Your task to perform on an android device: install app "Adobe Acrobat Reader" Image 0: 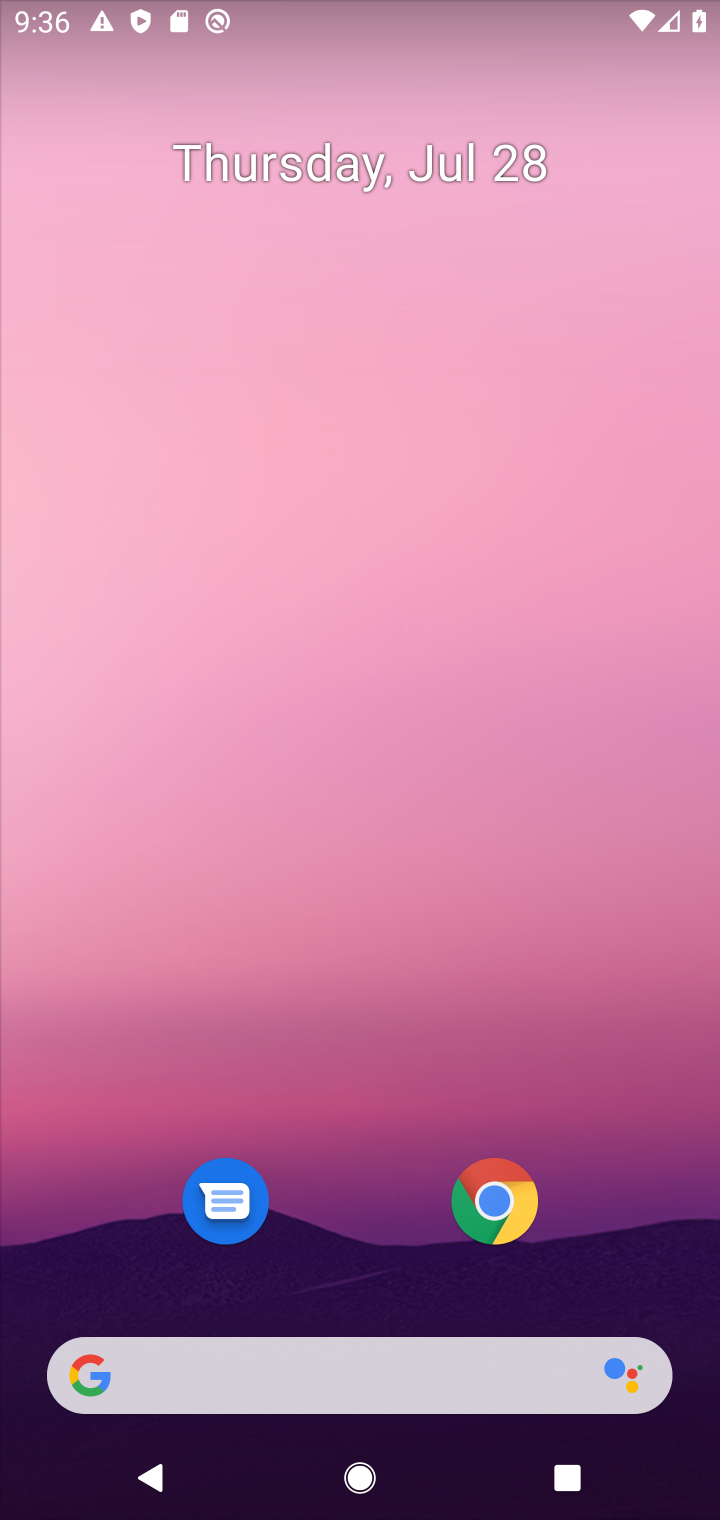
Step 0: drag from (310, 1315) to (384, 0)
Your task to perform on an android device: install app "Adobe Acrobat Reader" Image 1: 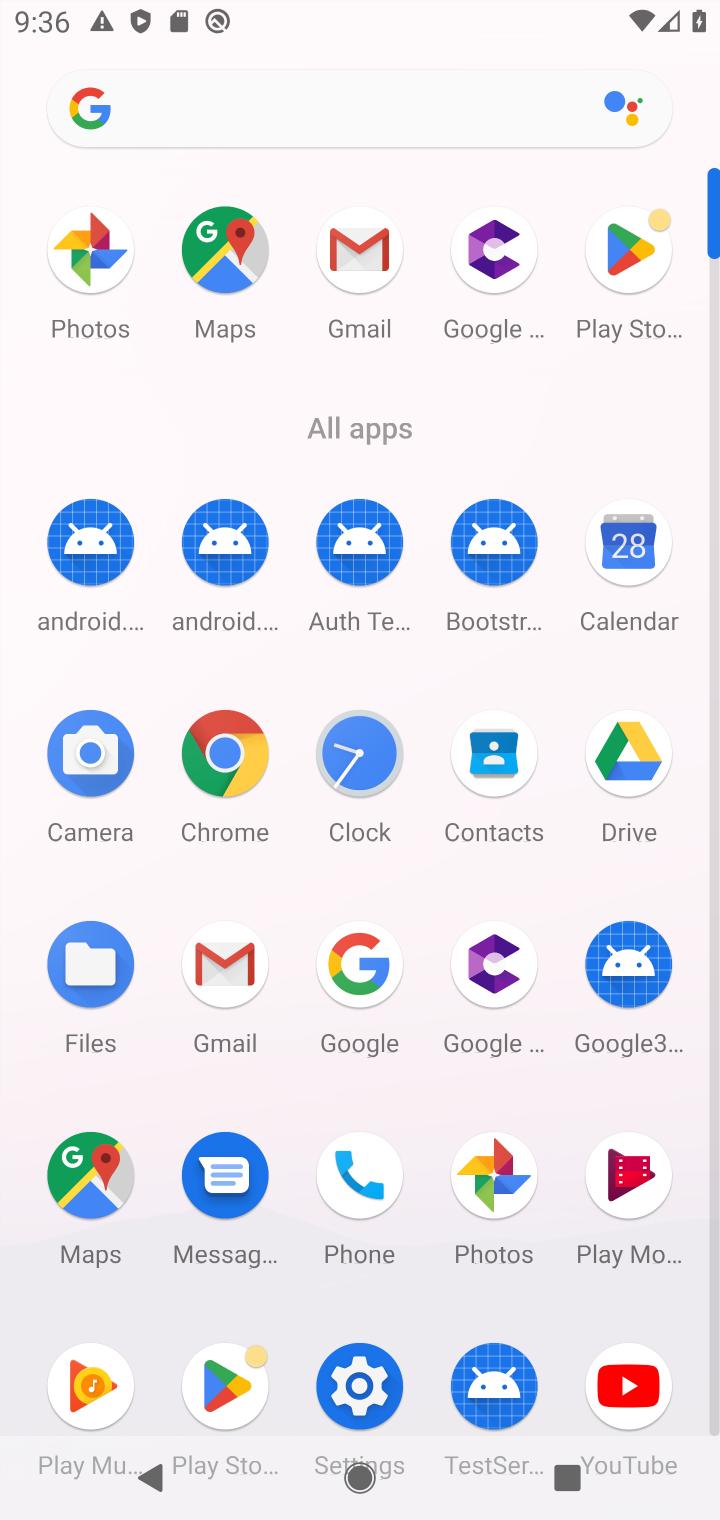
Step 1: click (205, 1378)
Your task to perform on an android device: install app "Adobe Acrobat Reader" Image 2: 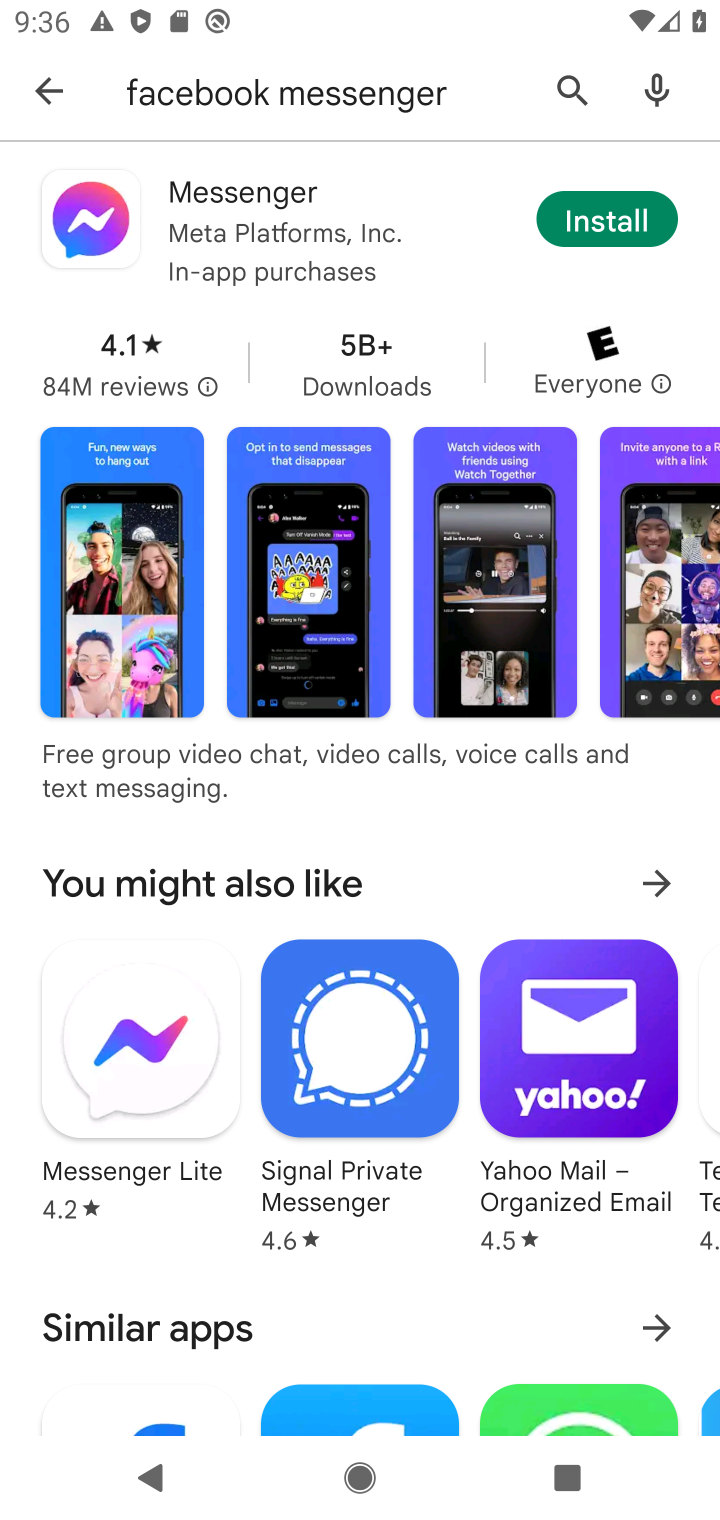
Step 2: click (376, 88)
Your task to perform on an android device: install app "Adobe Acrobat Reader" Image 3: 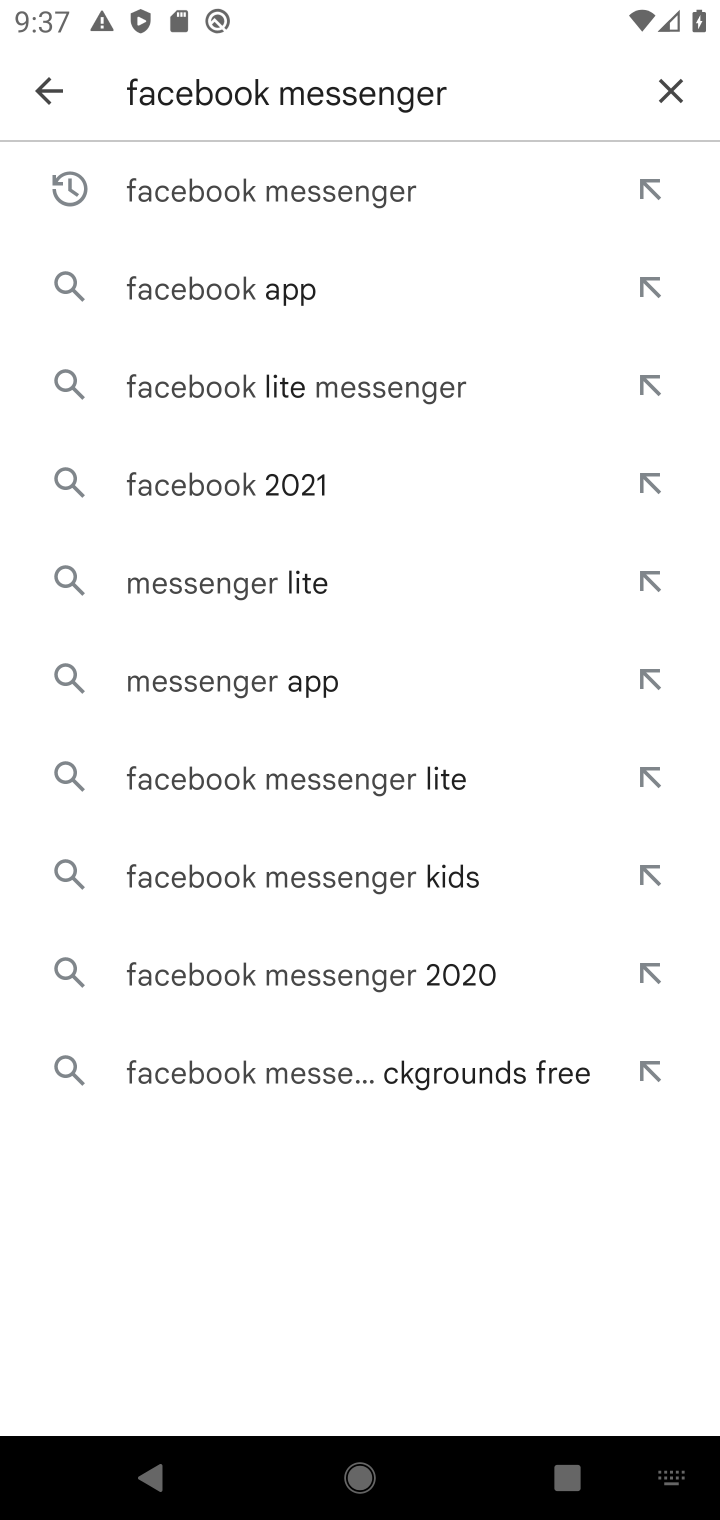
Step 3: click (667, 87)
Your task to perform on an android device: install app "Adobe Acrobat Reader" Image 4: 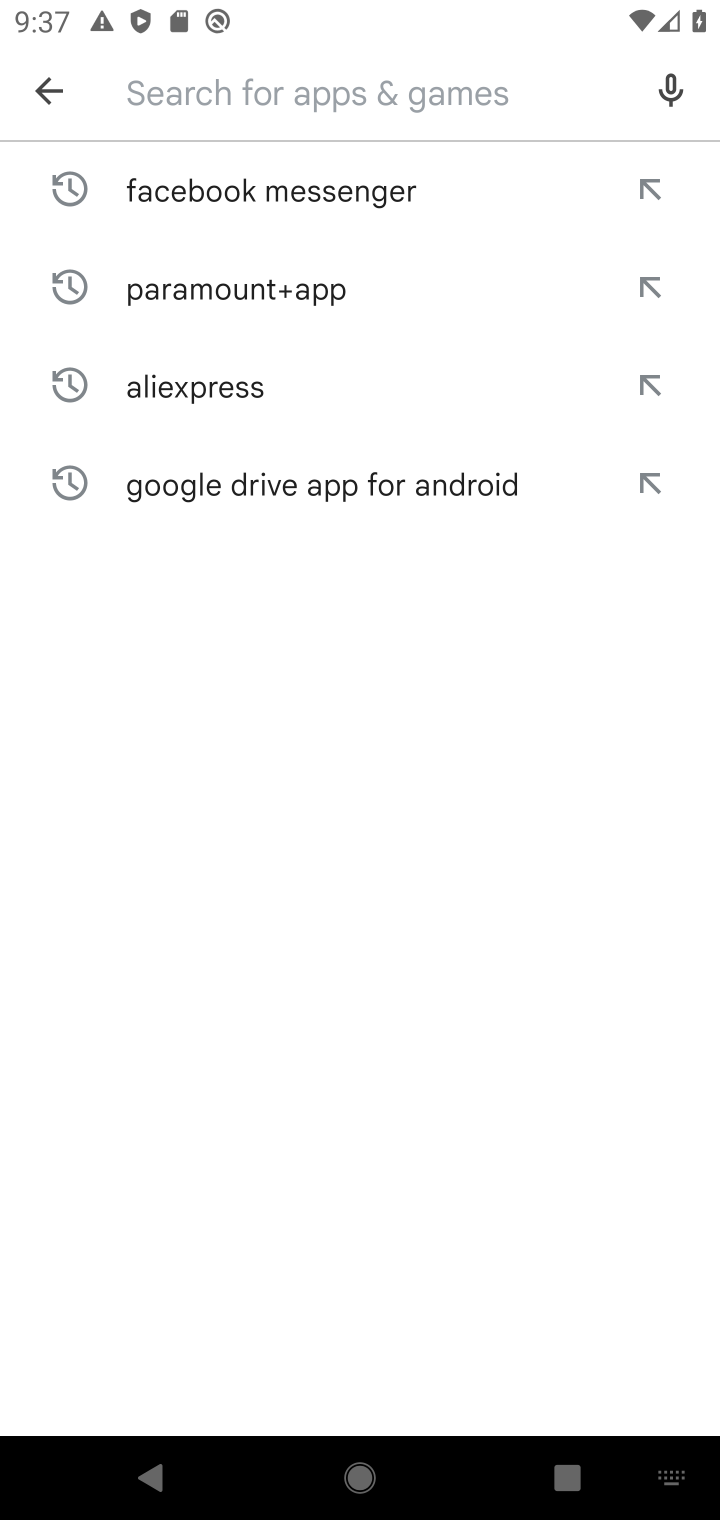
Step 4: type "Adobe Acrobat Reader"
Your task to perform on an android device: install app "Adobe Acrobat Reader" Image 5: 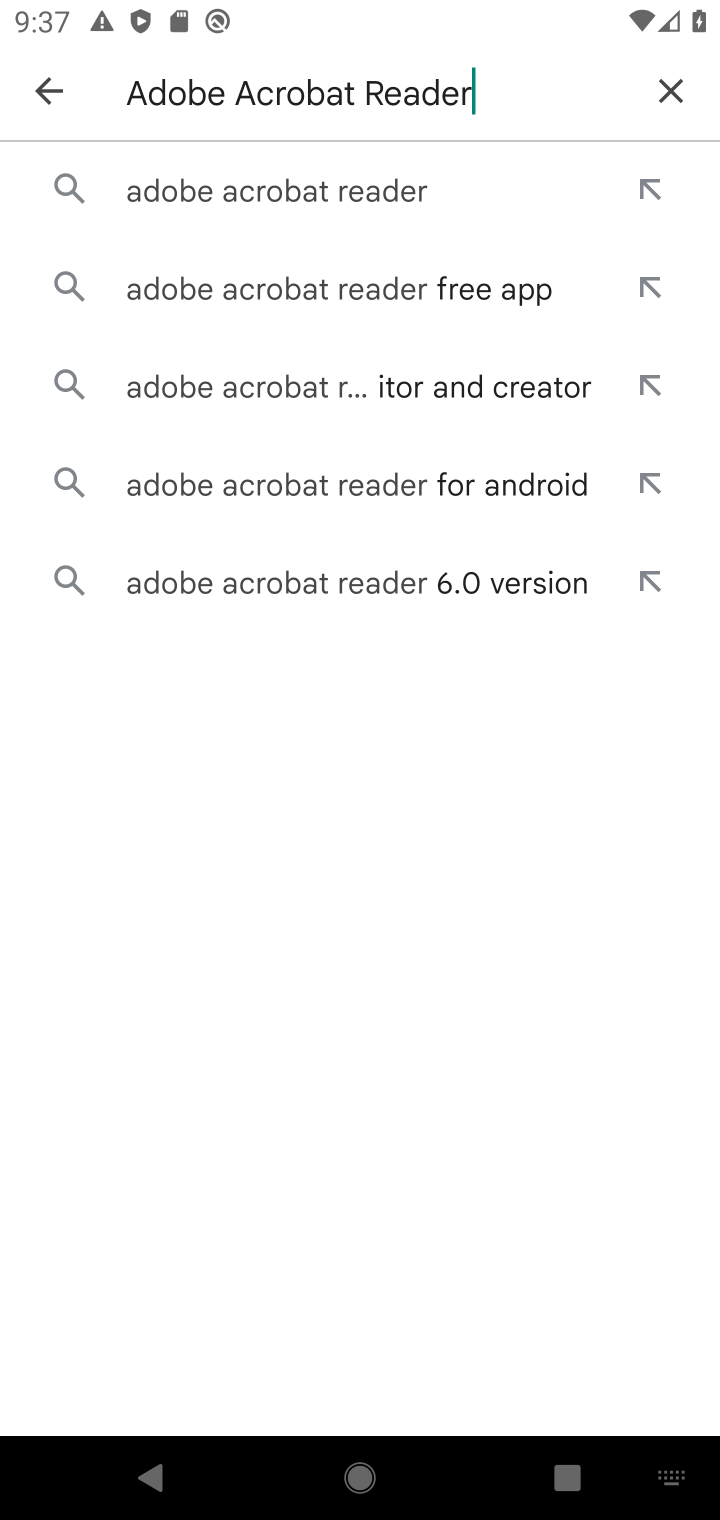
Step 5: click (272, 206)
Your task to perform on an android device: install app "Adobe Acrobat Reader" Image 6: 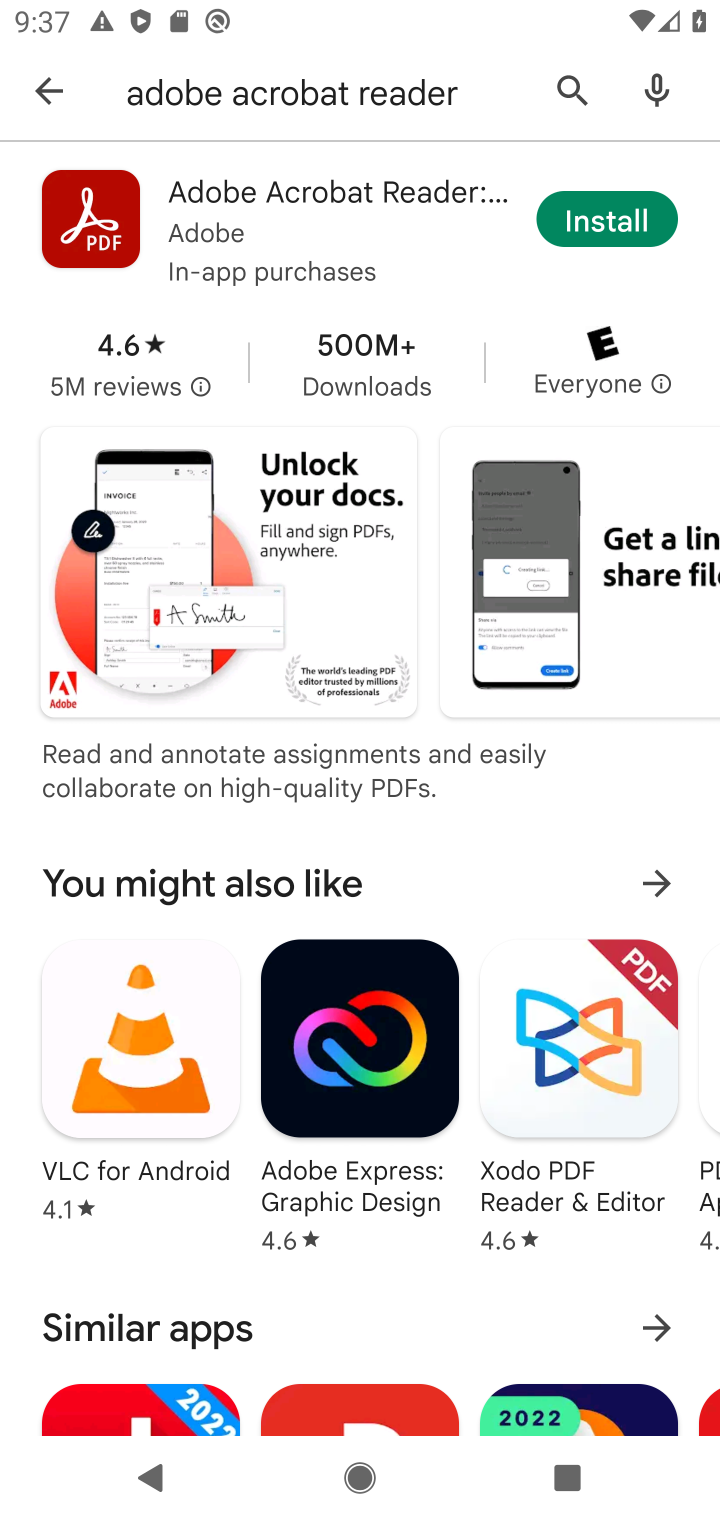
Step 6: click (592, 218)
Your task to perform on an android device: install app "Adobe Acrobat Reader" Image 7: 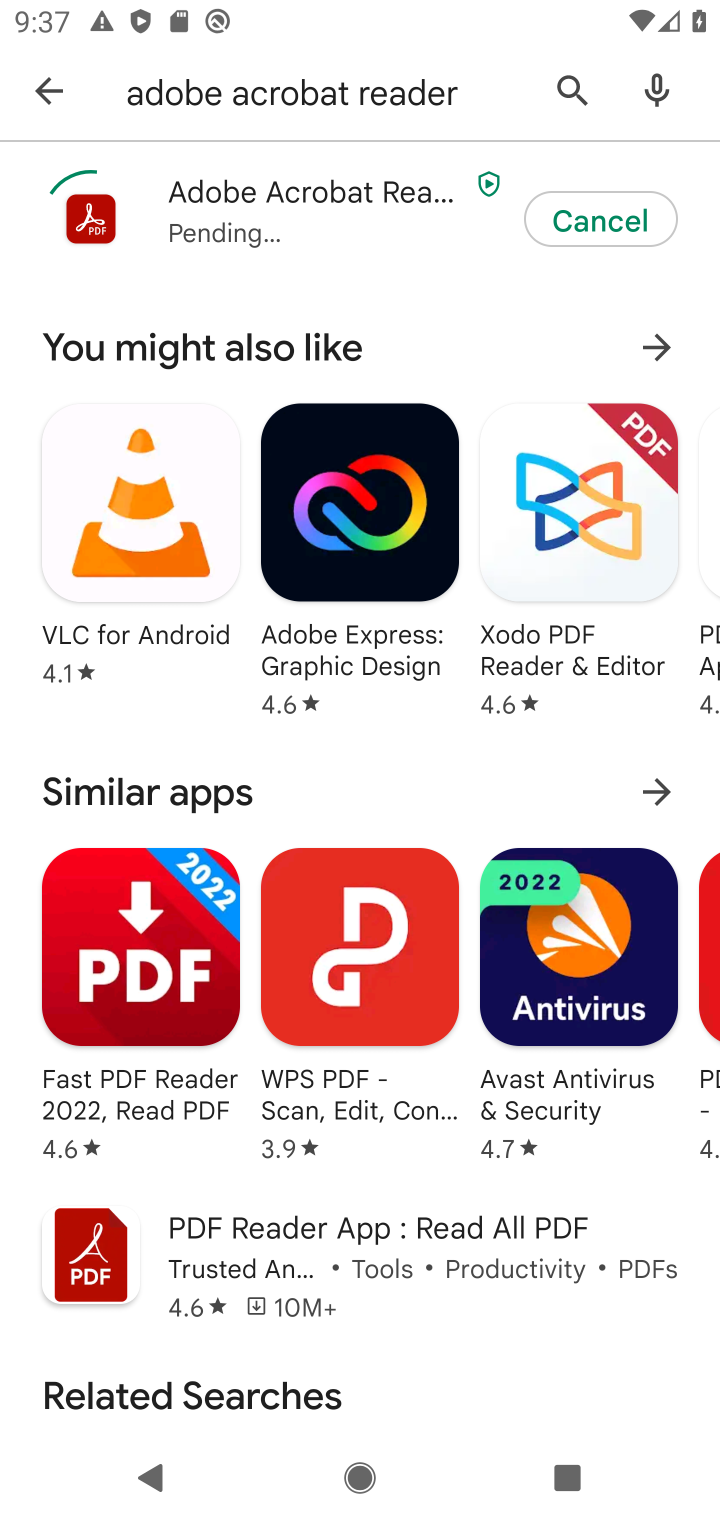
Step 7: click (37, 80)
Your task to perform on an android device: install app "Adobe Acrobat Reader" Image 8: 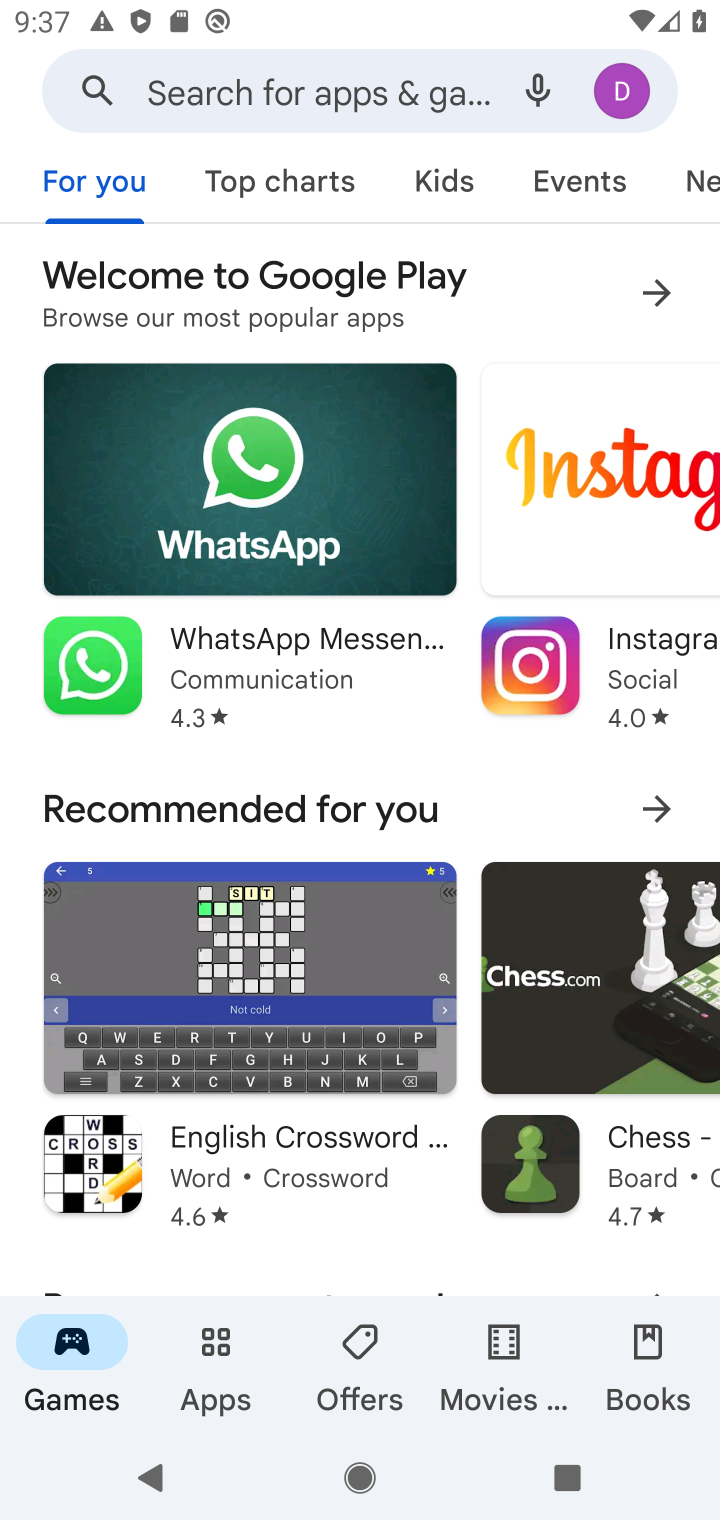
Step 8: click (619, 97)
Your task to perform on an android device: install app "Adobe Acrobat Reader" Image 9: 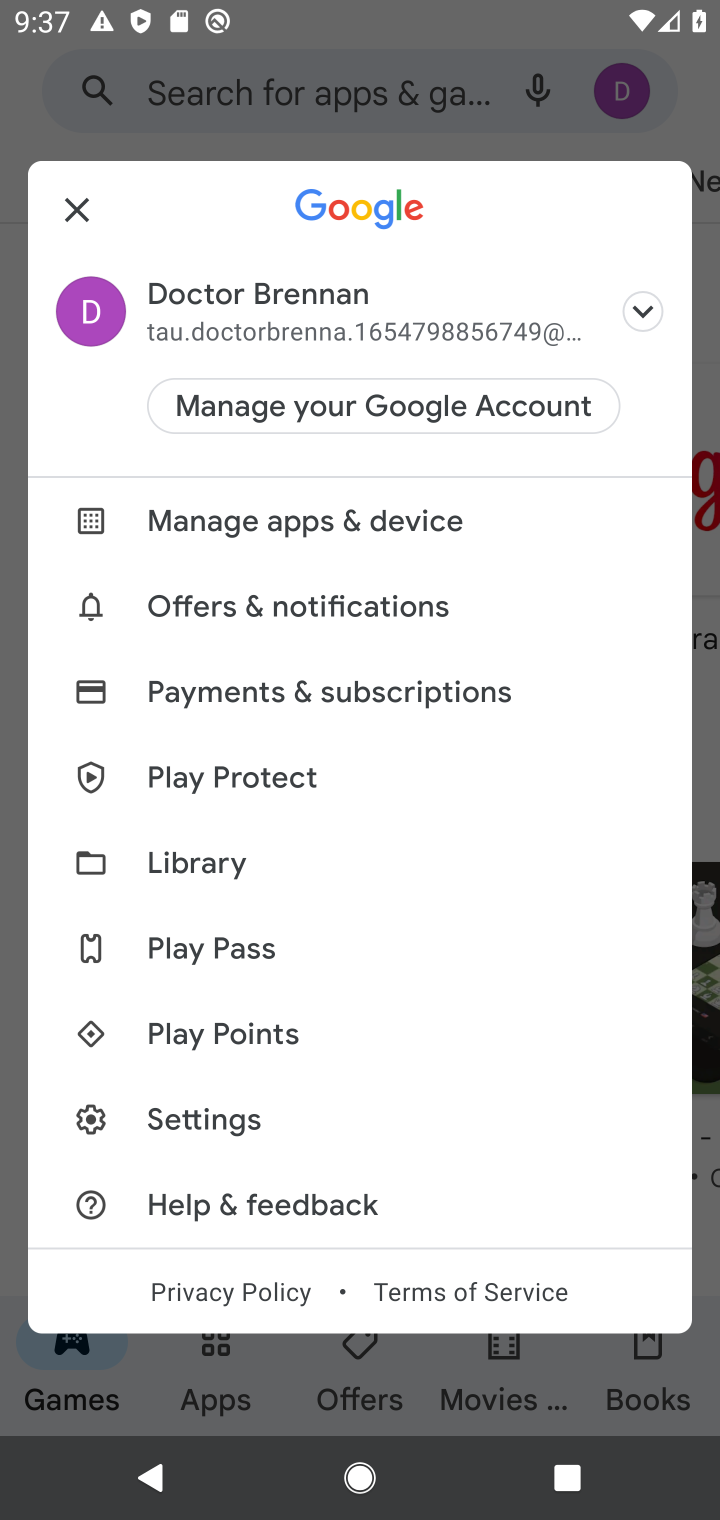
Step 9: click (385, 527)
Your task to perform on an android device: install app "Adobe Acrobat Reader" Image 10: 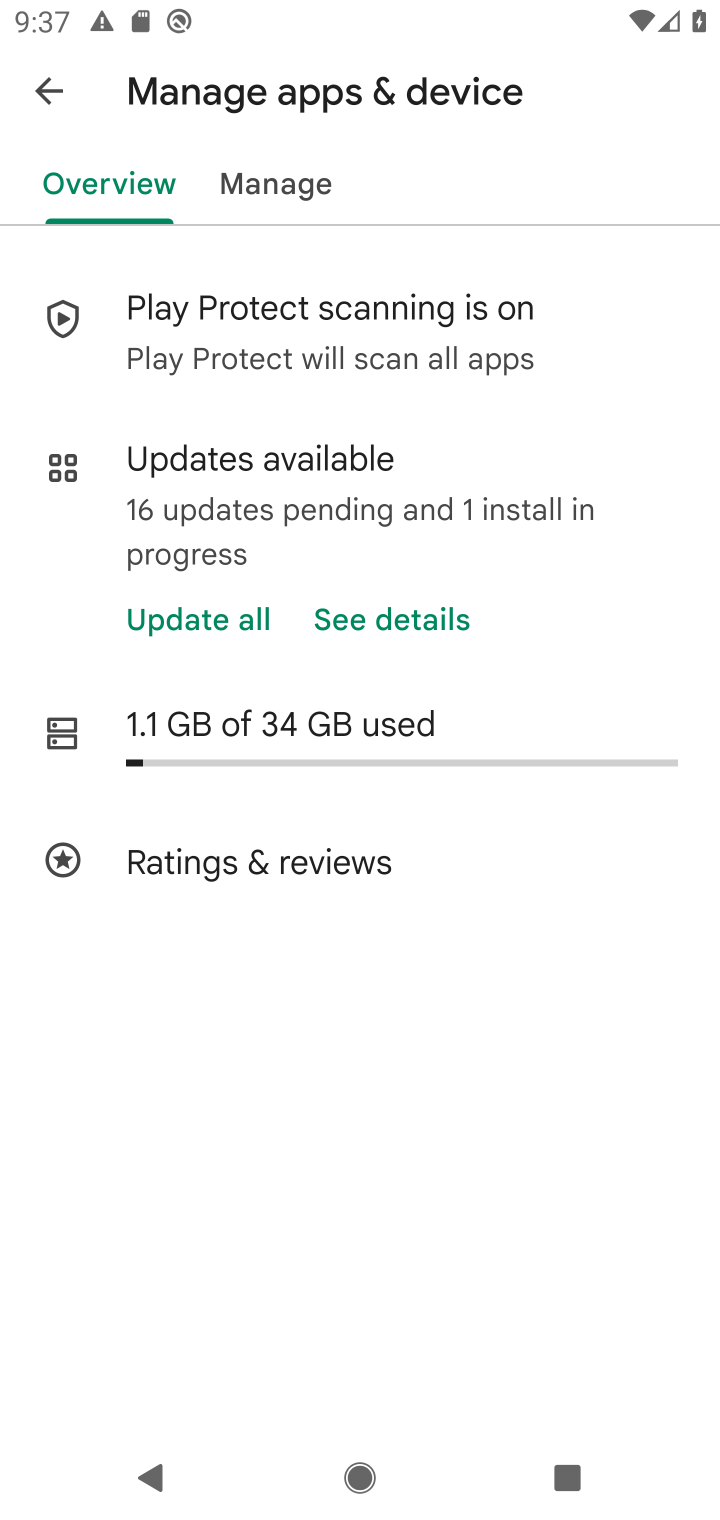
Step 10: click (261, 532)
Your task to perform on an android device: install app "Adobe Acrobat Reader" Image 11: 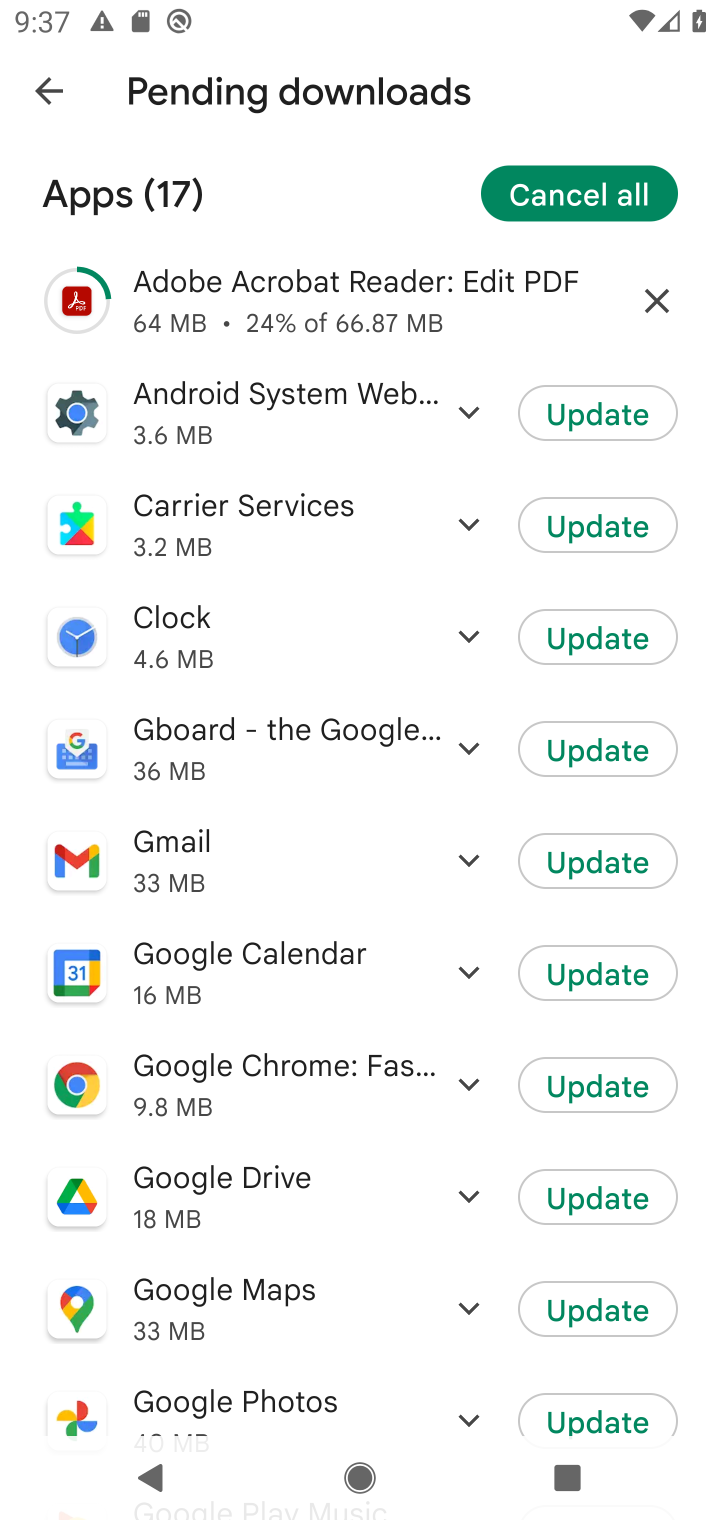
Step 11: click (228, 316)
Your task to perform on an android device: install app "Adobe Acrobat Reader" Image 12: 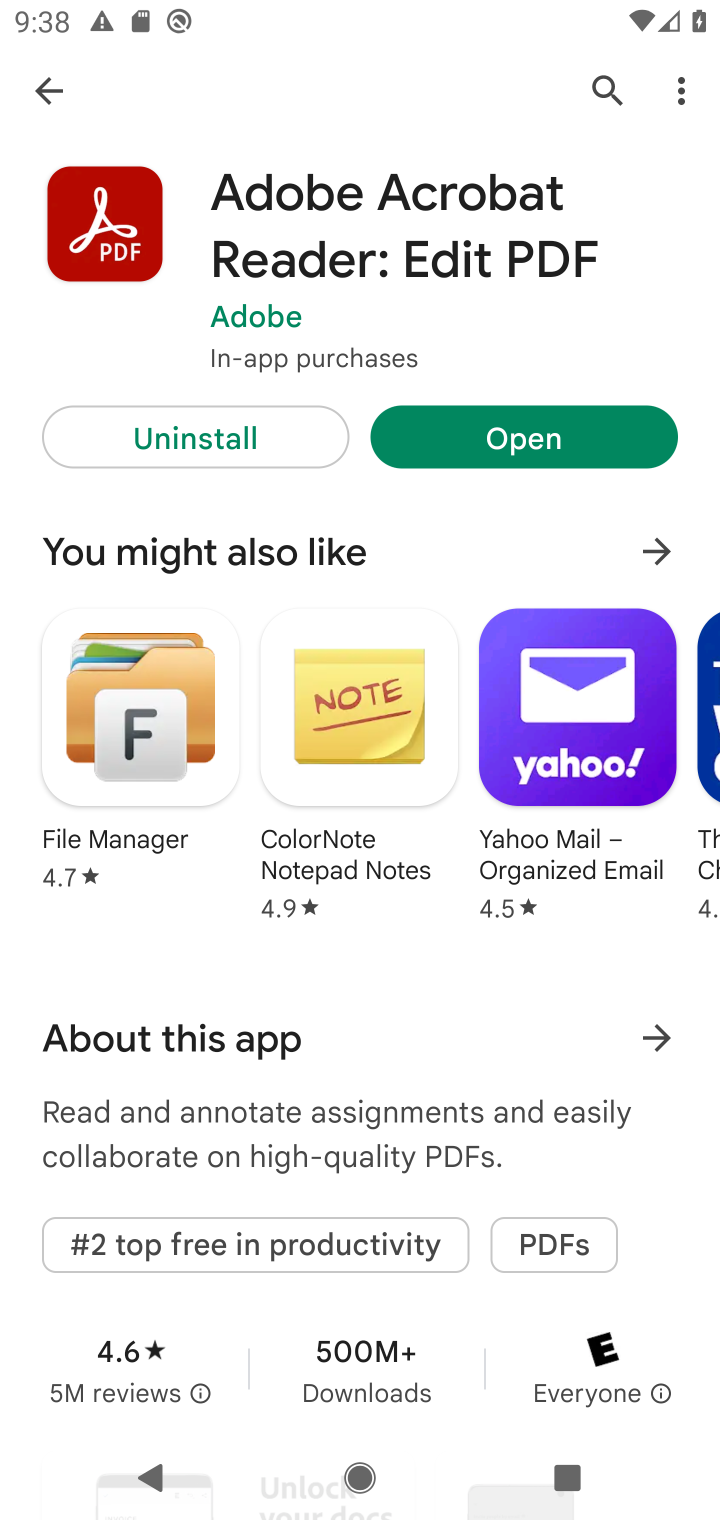
Step 12: click (625, 446)
Your task to perform on an android device: install app "Adobe Acrobat Reader" Image 13: 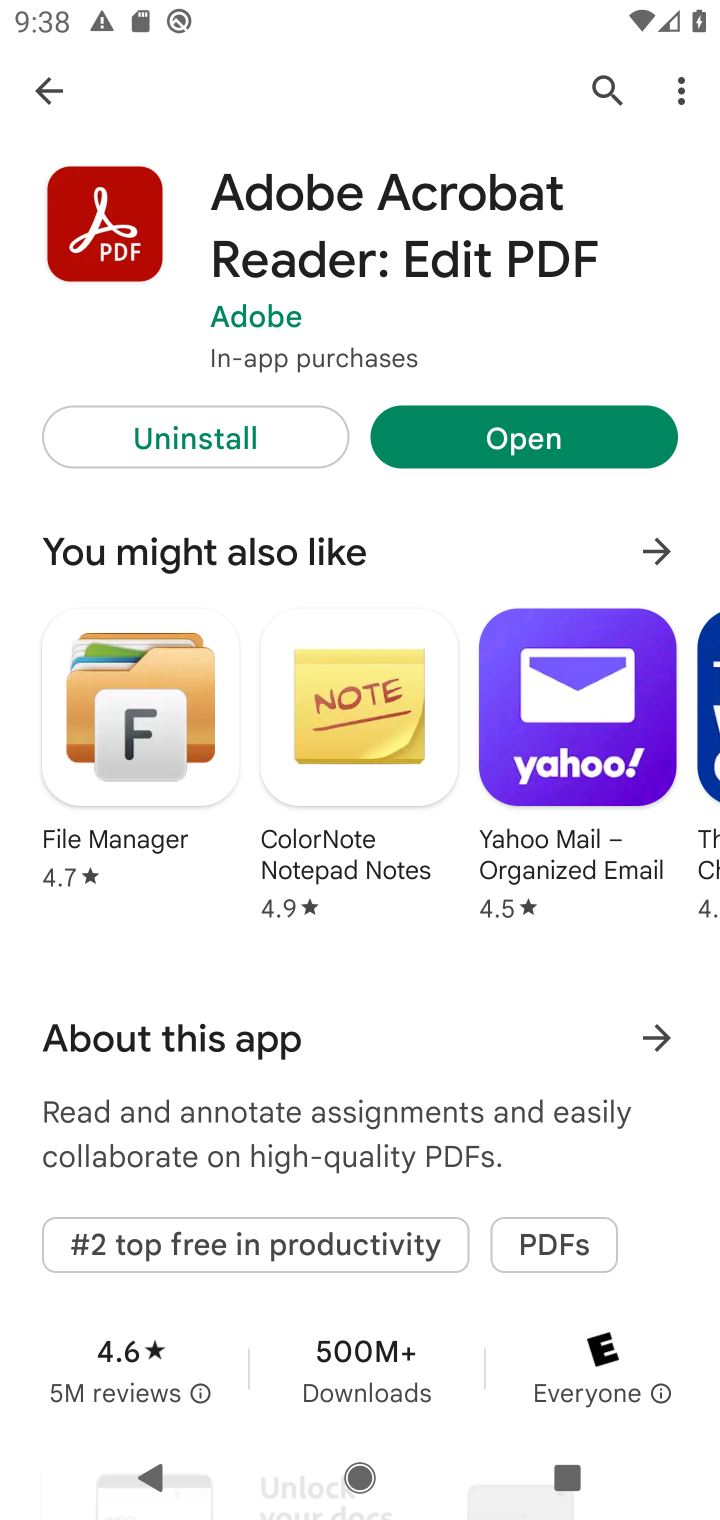
Step 13: task complete